Your task to perform on an android device: Install the Starbucks app Image 0: 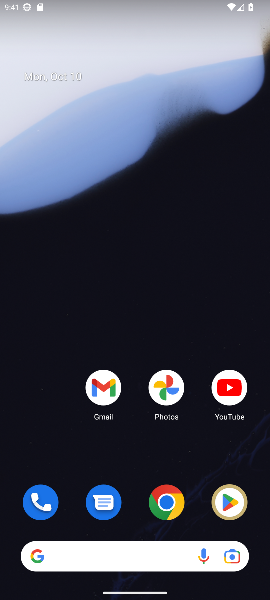
Step 0: click (219, 504)
Your task to perform on an android device: Install the Starbucks app Image 1: 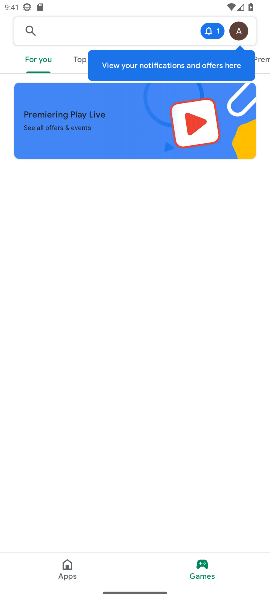
Step 1: click (120, 36)
Your task to perform on an android device: Install the Starbucks app Image 2: 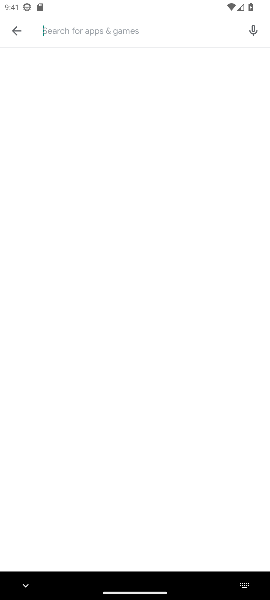
Step 2: type "starbucks"
Your task to perform on an android device: Install the Starbucks app Image 3: 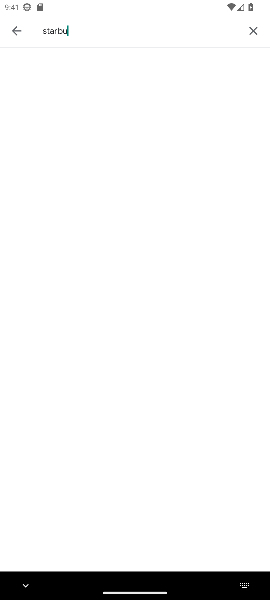
Step 3: type ""
Your task to perform on an android device: Install the Starbucks app Image 4: 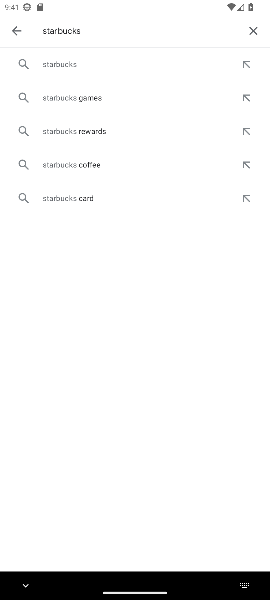
Step 4: click (126, 73)
Your task to perform on an android device: Install the Starbucks app Image 5: 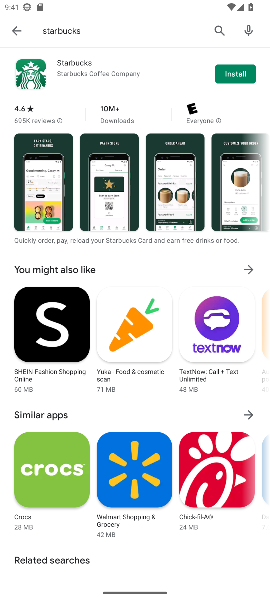
Step 5: click (226, 75)
Your task to perform on an android device: Install the Starbucks app Image 6: 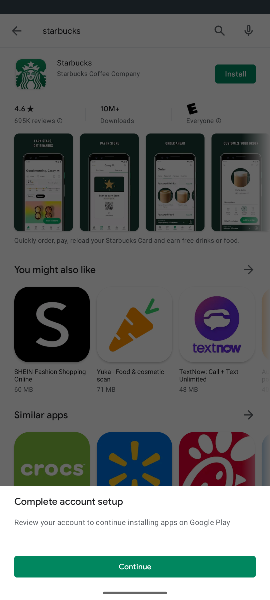
Step 6: click (173, 557)
Your task to perform on an android device: Install the Starbucks app Image 7: 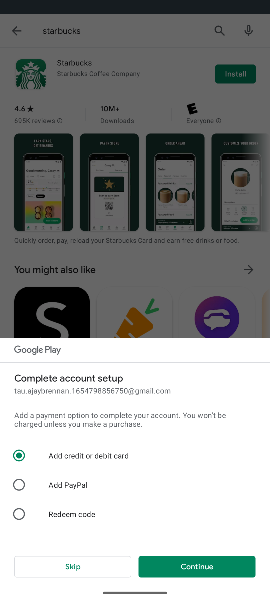
Step 7: click (75, 566)
Your task to perform on an android device: Install the Starbucks app Image 8: 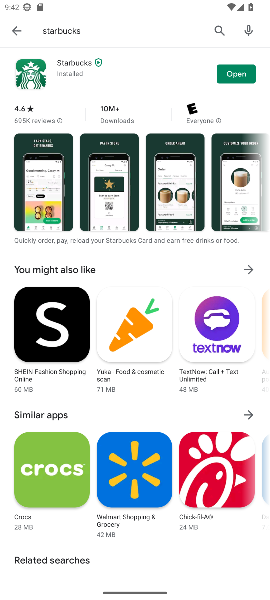
Step 8: click (232, 80)
Your task to perform on an android device: Install the Starbucks app Image 9: 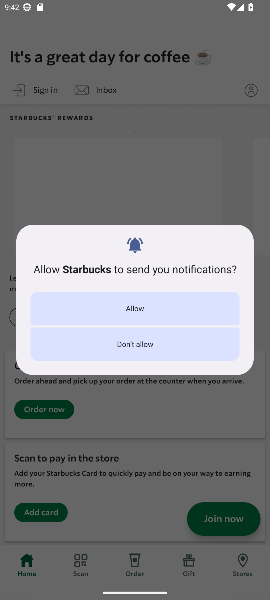
Step 9: click (150, 345)
Your task to perform on an android device: Install the Starbucks app Image 10: 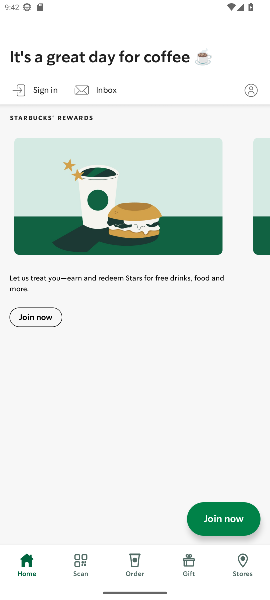
Step 10: click (135, 214)
Your task to perform on an android device: Install the Starbucks app Image 11: 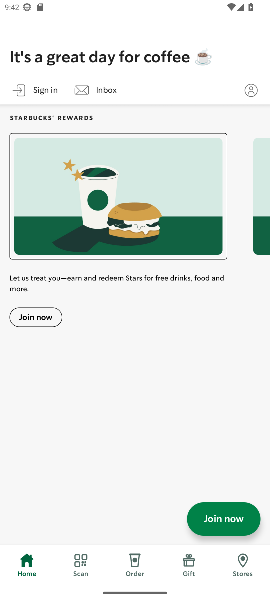
Step 11: click (79, 565)
Your task to perform on an android device: Install the Starbucks app Image 12: 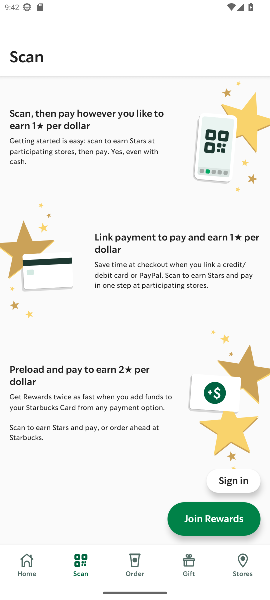
Step 12: drag from (170, 489) to (173, 215)
Your task to perform on an android device: Install the Starbucks app Image 13: 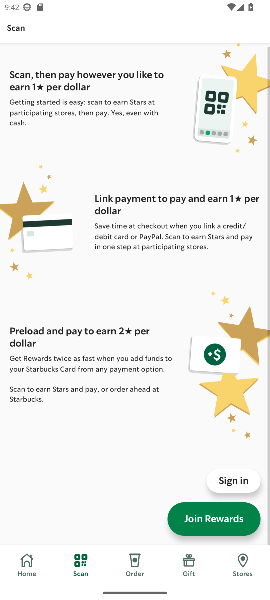
Step 13: drag from (195, 450) to (188, 173)
Your task to perform on an android device: Install the Starbucks app Image 14: 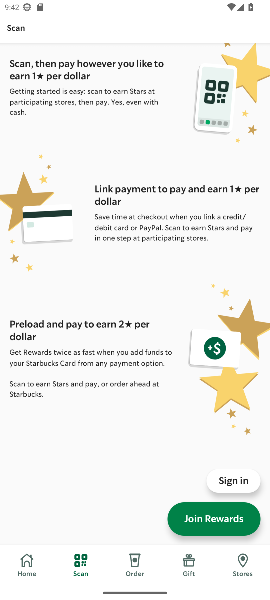
Step 14: drag from (130, 459) to (138, 166)
Your task to perform on an android device: Install the Starbucks app Image 15: 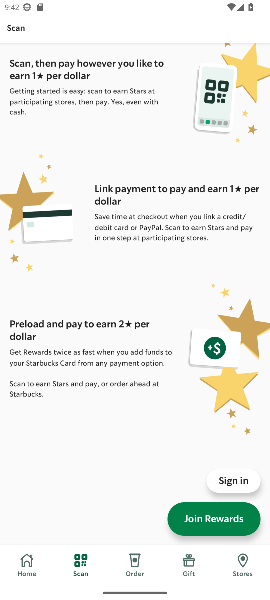
Step 15: drag from (116, 177) to (95, 458)
Your task to perform on an android device: Install the Starbucks app Image 16: 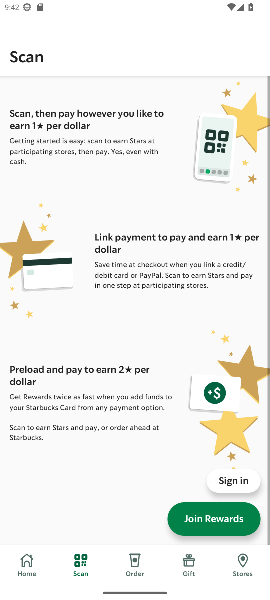
Step 16: drag from (170, 199) to (178, 464)
Your task to perform on an android device: Install the Starbucks app Image 17: 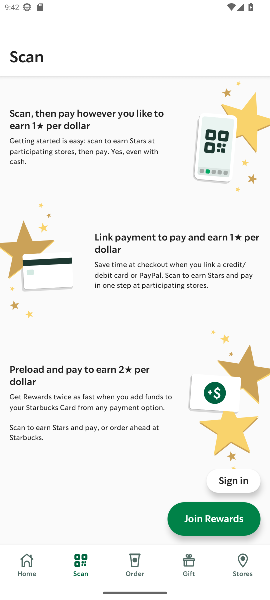
Step 17: drag from (172, 183) to (165, 459)
Your task to perform on an android device: Install the Starbucks app Image 18: 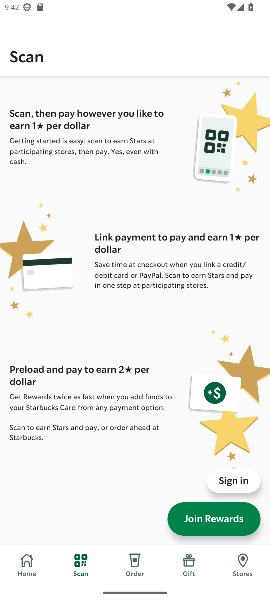
Step 18: click (148, 564)
Your task to perform on an android device: Install the Starbucks app Image 19: 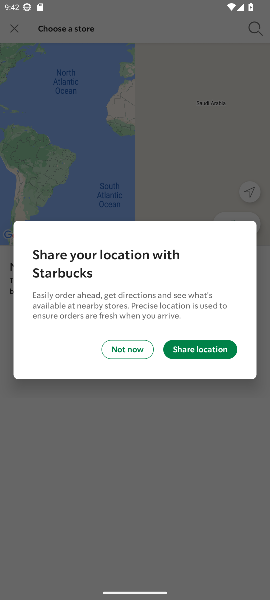
Step 19: drag from (149, 350) to (134, 380)
Your task to perform on an android device: Install the Starbucks app Image 20: 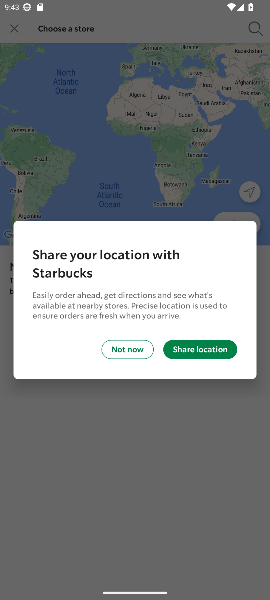
Step 20: click (139, 342)
Your task to perform on an android device: Install the Starbucks app Image 21: 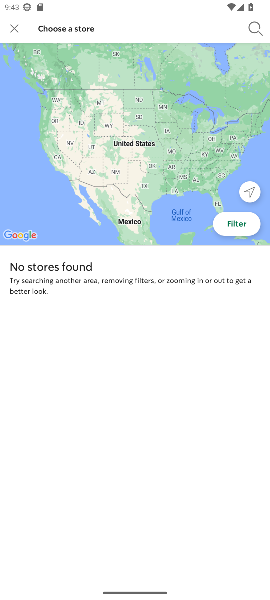
Step 21: press back button
Your task to perform on an android device: Install the Starbucks app Image 22: 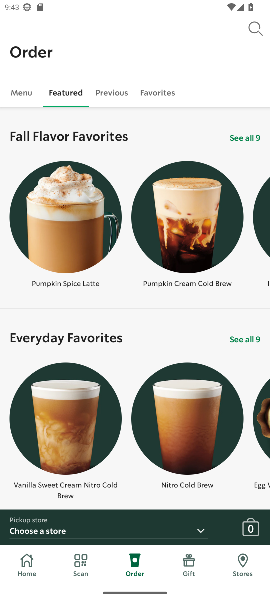
Step 22: drag from (188, 483) to (176, 184)
Your task to perform on an android device: Install the Starbucks app Image 23: 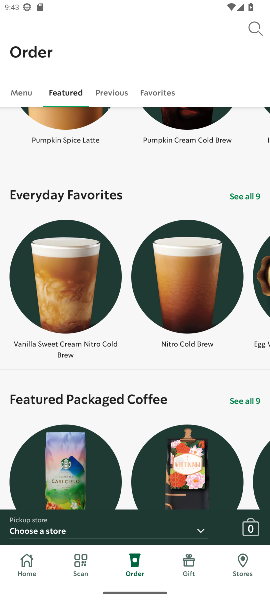
Step 23: drag from (166, 326) to (177, 233)
Your task to perform on an android device: Install the Starbucks app Image 24: 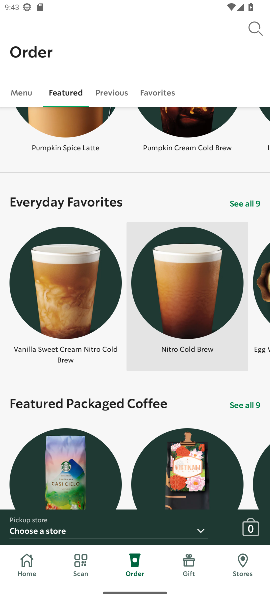
Step 24: drag from (160, 479) to (171, 242)
Your task to perform on an android device: Install the Starbucks app Image 25: 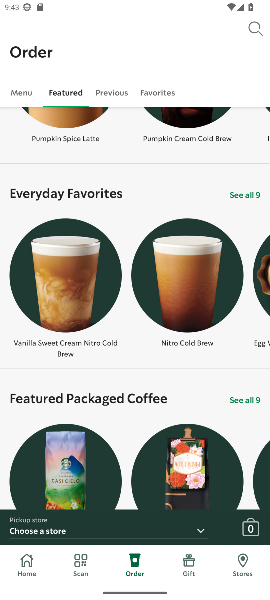
Step 25: drag from (166, 433) to (168, 292)
Your task to perform on an android device: Install the Starbucks app Image 26: 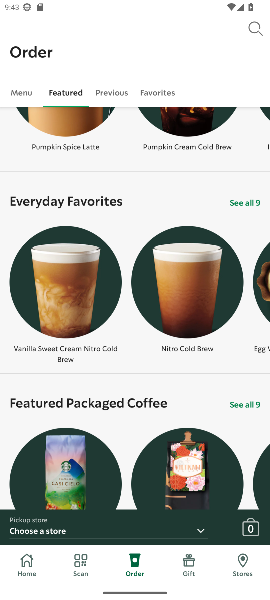
Step 26: click (25, 558)
Your task to perform on an android device: Install the Starbucks app Image 27: 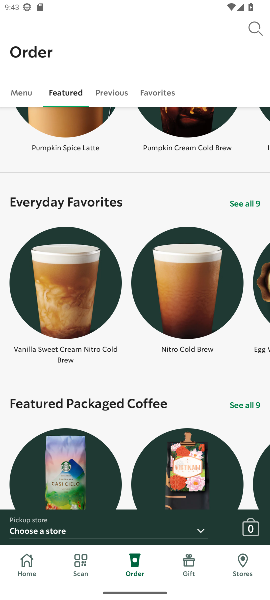
Step 27: click (25, 558)
Your task to perform on an android device: Install the Starbucks app Image 28: 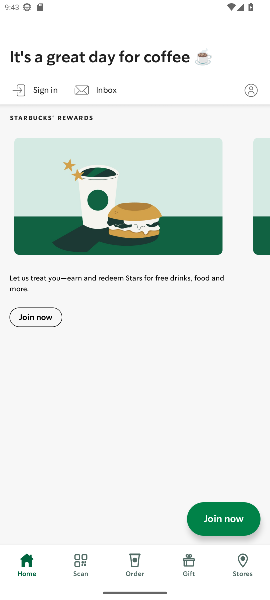
Step 28: click (196, 556)
Your task to perform on an android device: Install the Starbucks app Image 29: 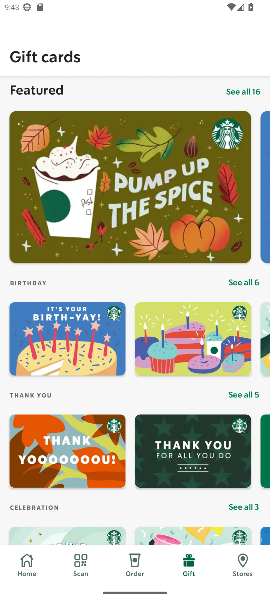
Step 29: task complete